Your task to perform on an android device: Open Amazon Image 0: 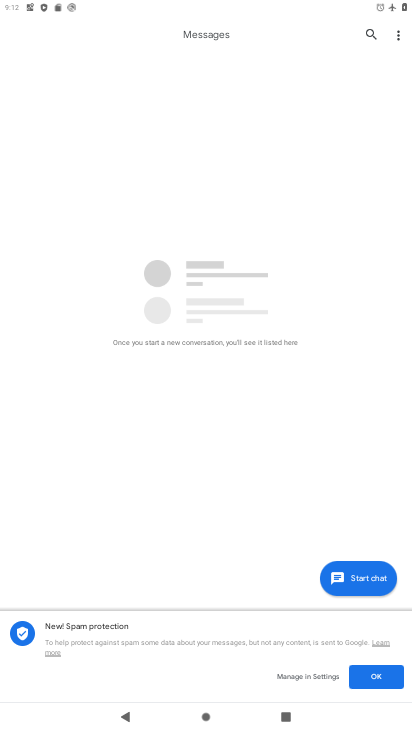
Step 0: press home button
Your task to perform on an android device: Open Amazon Image 1: 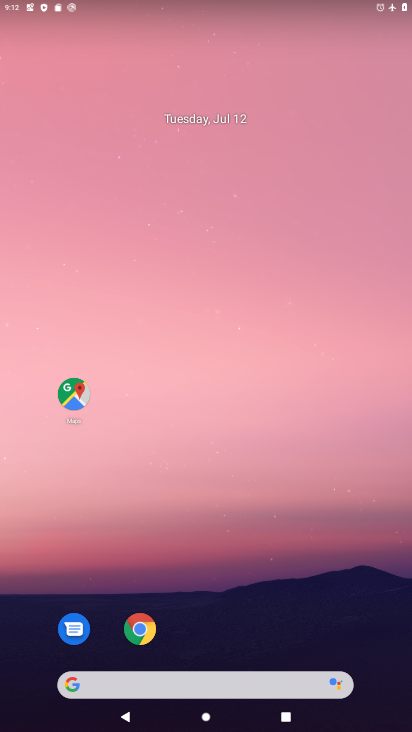
Step 1: drag from (203, 431) to (188, 309)
Your task to perform on an android device: Open Amazon Image 2: 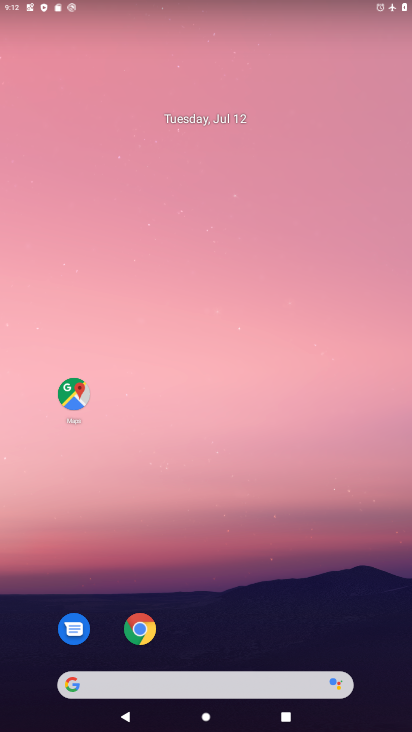
Step 2: drag from (268, 636) to (268, 239)
Your task to perform on an android device: Open Amazon Image 3: 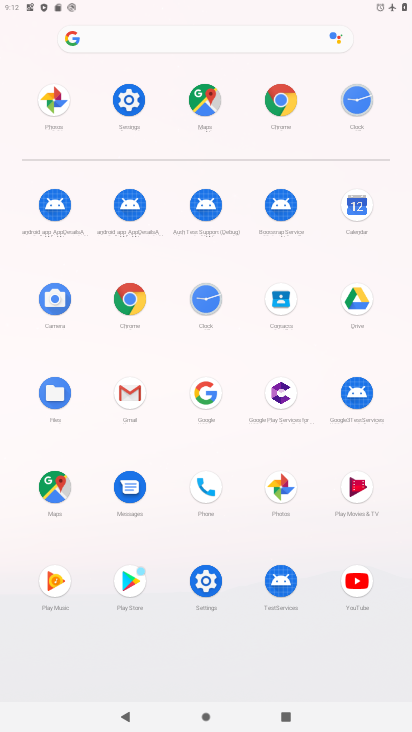
Step 3: click (276, 96)
Your task to perform on an android device: Open Amazon Image 4: 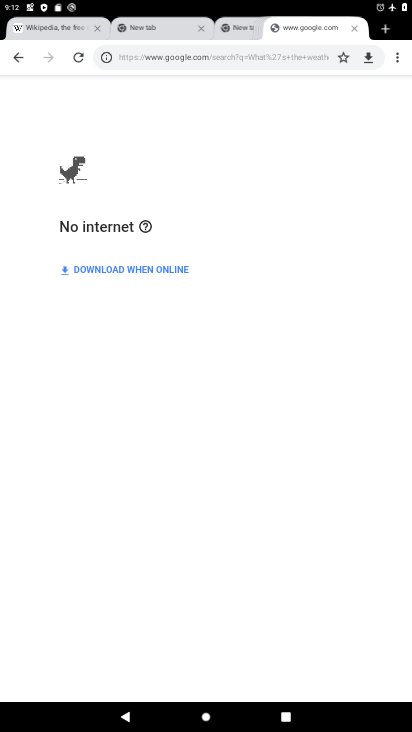
Step 4: click (393, 35)
Your task to perform on an android device: Open Amazon Image 5: 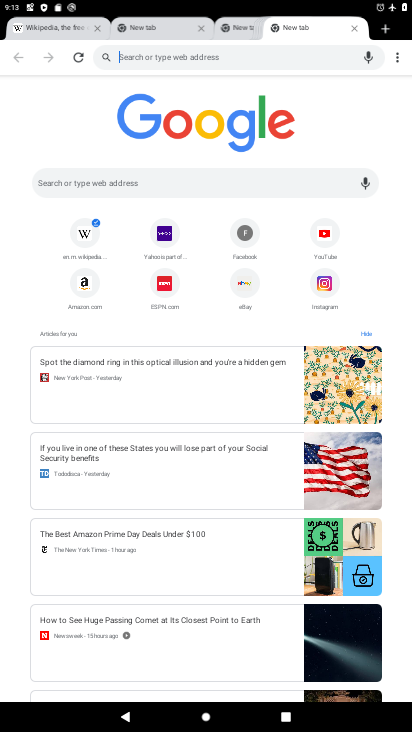
Step 5: click (83, 277)
Your task to perform on an android device: Open Amazon Image 6: 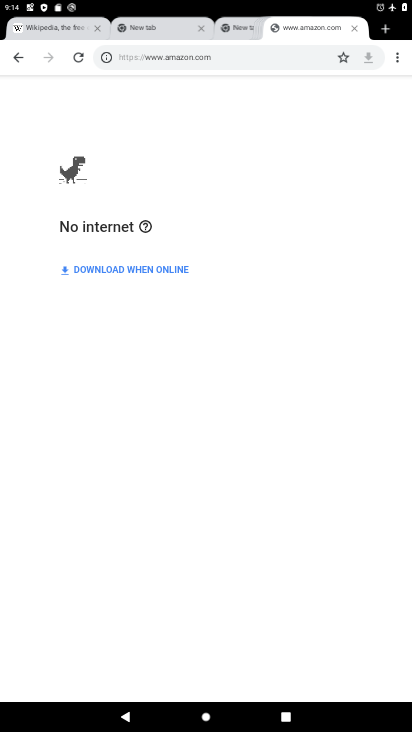
Step 6: task complete